Your task to perform on an android device: turn on the 12-hour format for clock Image 0: 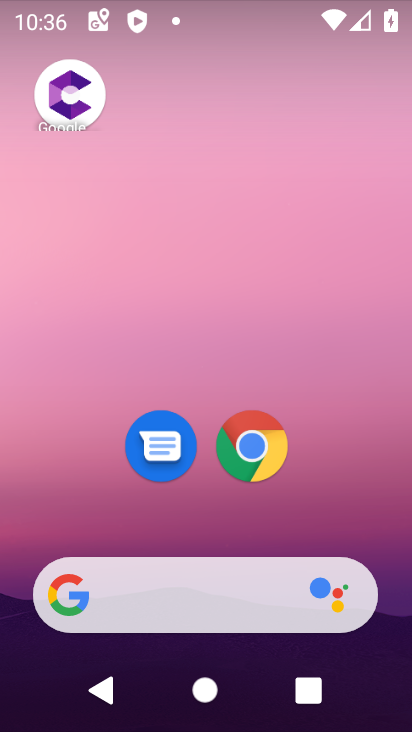
Step 0: drag from (375, 542) to (390, 133)
Your task to perform on an android device: turn on the 12-hour format for clock Image 1: 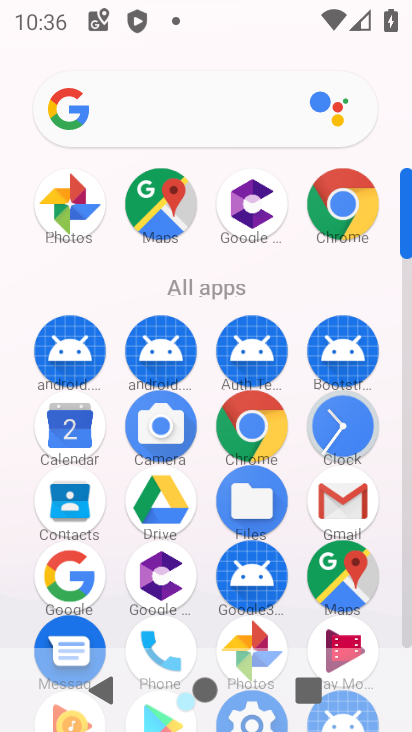
Step 1: click (361, 431)
Your task to perform on an android device: turn on the 12-hour format for clock Image 2: 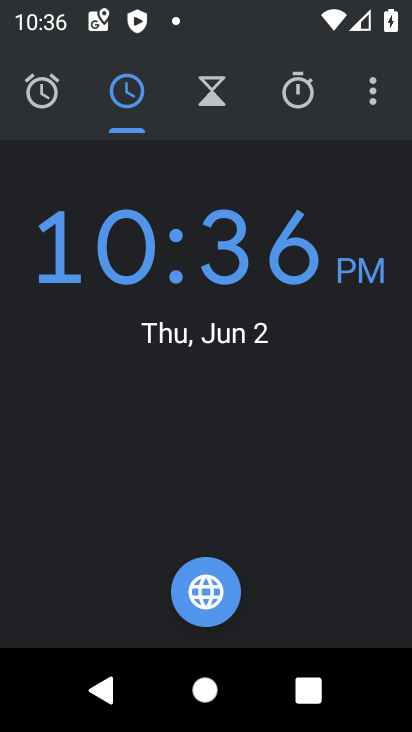
Step 2: click (377, 99)
Your task to perform on an android device: turn on the 12-hour format for clock Image 3: 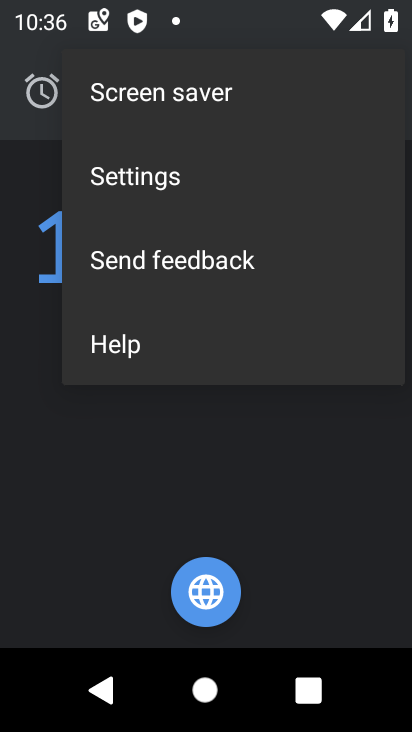
Step 3: click (203, 179)
Your task to perform on an android device: turn on the 12-hour format for clock Image 4: 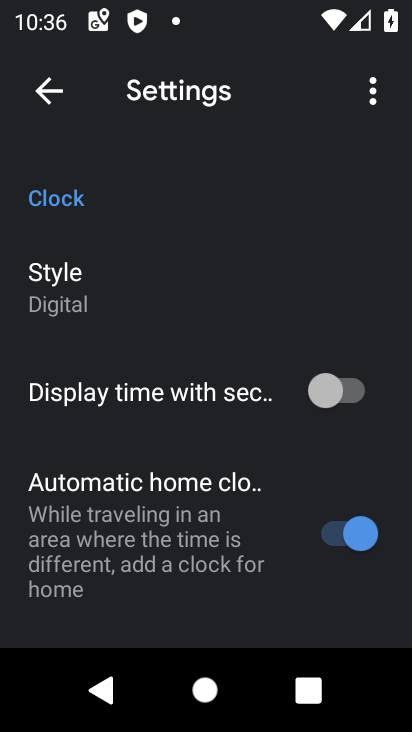
Step 4: drag from (260, 497) to (279, 334)
Your task to perform on an android device: turn on the 12-hour format for clock Image 5: 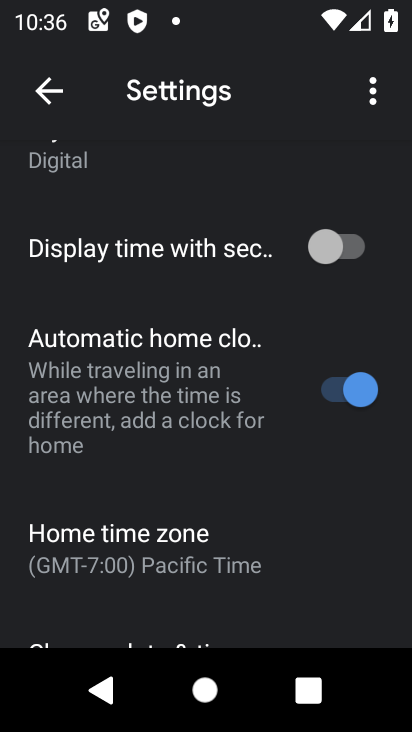
Step 5: drag from (272, 500) to (290, 330)
Your task to perform on an android device: turn on the 12-hour format for clock Image 6: 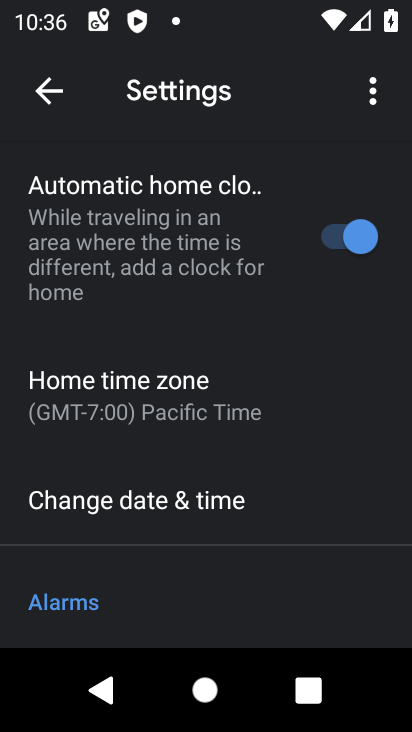
Step 6: drag from (298, 510) to (295, 346)
Your task to perform on an android device: turn on the 12-hour format for clock Image 7: 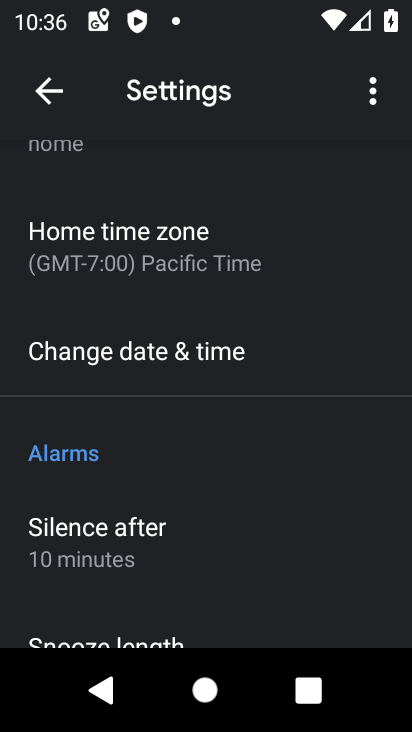
Step 7: drag from (304, 481) to (314, 309)
Your task to perform on an android device: turn on the 12-hour format for clock Image 8: 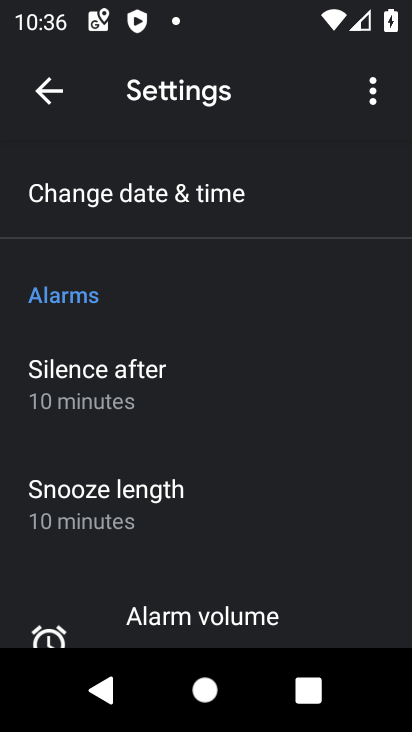
Step 8: click (257, 205)
Your task to perform on an android device: turn on the 12-hour format for clock Image 9: 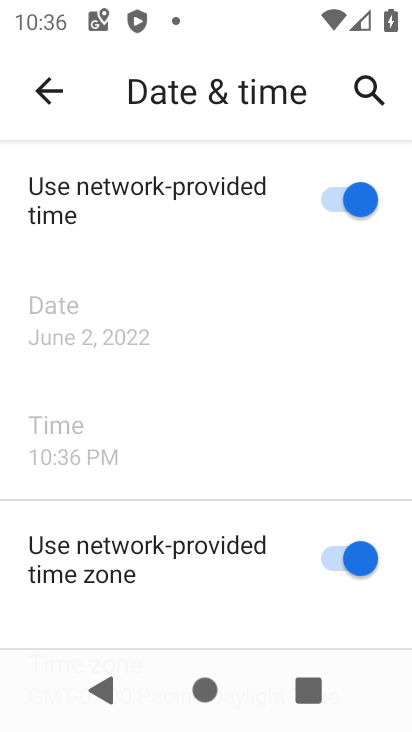
Step 9: drag from (287, 583) to (310, 255)
Your task to perform on an android device: turn on the 12-hour format for clock Image 10: 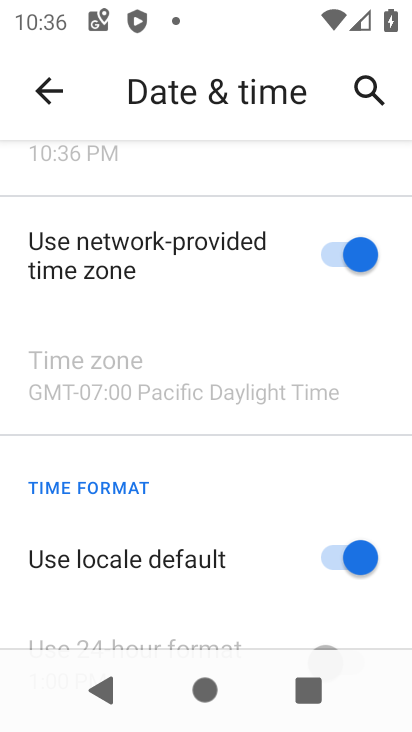
Step 10: drag from (279, 548) to (289, 339)
Your task to perform on an android device: turn on the 12-hour format for clock Image 11: 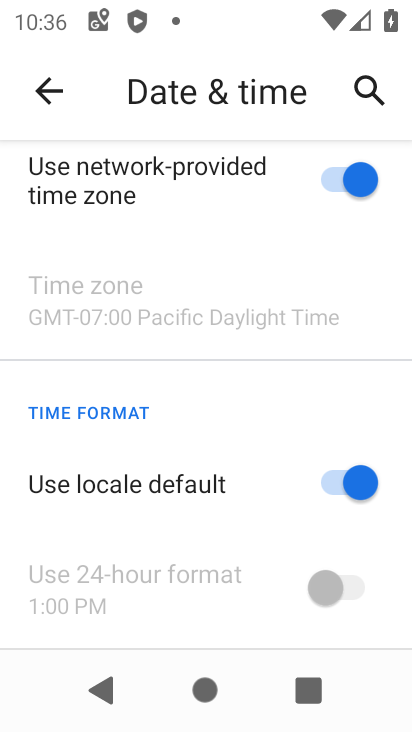
Step 11: click (352, 482)
Your task to perform on an android device: turn on the 12-hour format for clock Image 12: 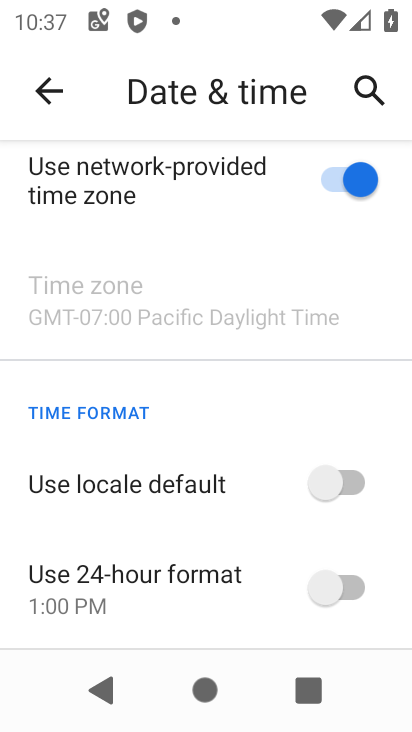
Step 12: task complete